Your task to perform on an android device: change the clock display to analog Image 0: 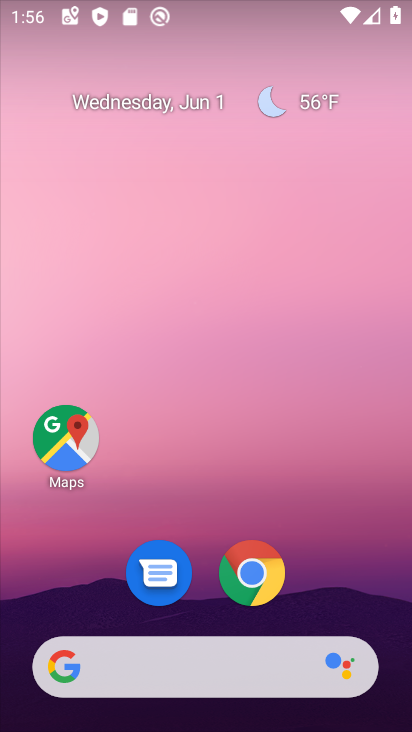
Step 0: drag from (360, 543) to (296, 47)
Your task to perform on an android device: change the clock display to analog Image 1: 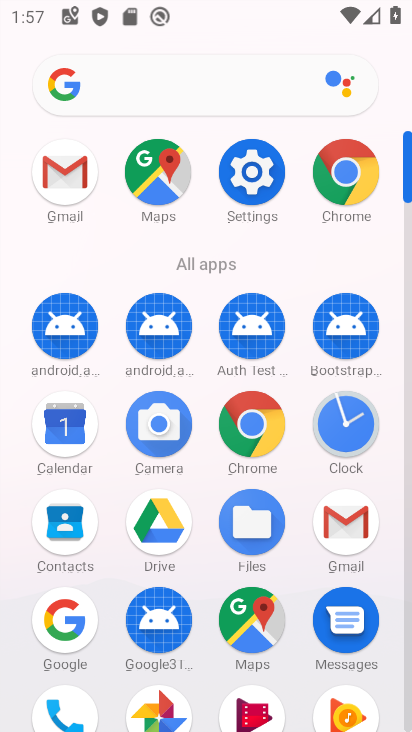
Step 1: click (370, 432)
Your task to perform on an android device: change the clock display to analog Image 2: 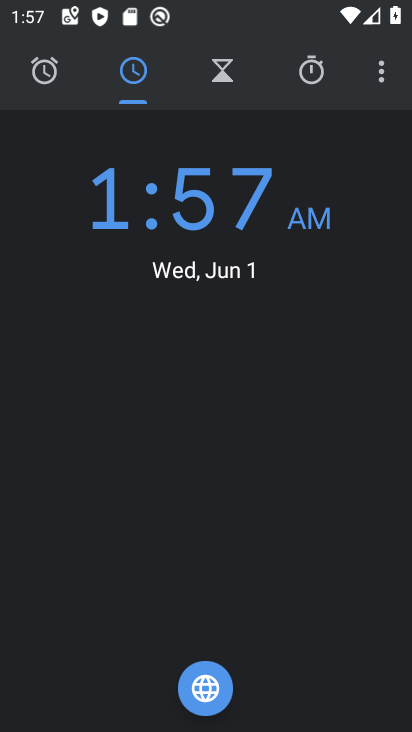
Step 2: click (379, 78)
Your task to perform on an android device: change the clock display to analog Image 3: 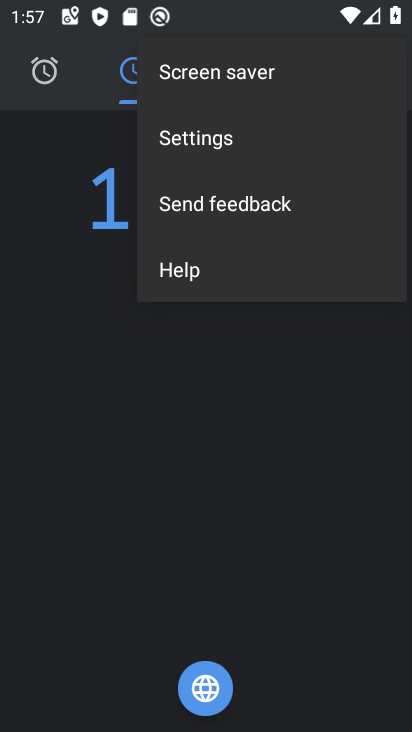
Step 3: click (219, 136)
Your task to perform on an android device: change the clock display to analog Image 4: 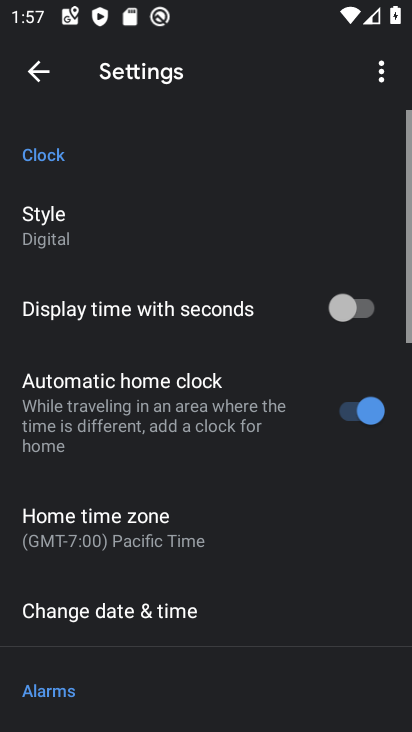
Step 4: click (62, 236)
Your task to perform on an android device: change the clock display to analog Image 5: 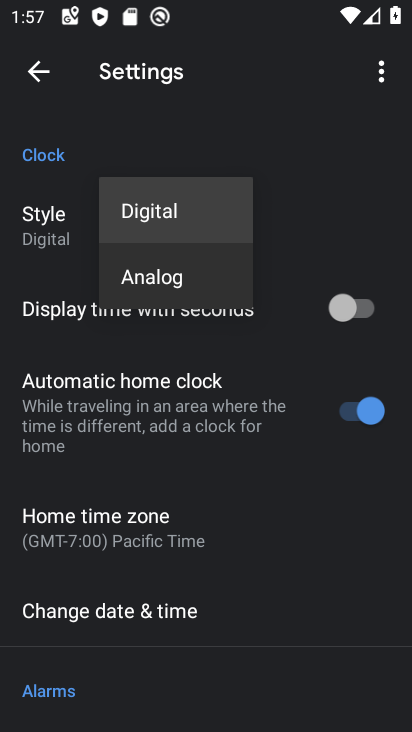
Step 5: click (167, 289)
Your task to perform on an android device: change the clock display to analog Image 6: 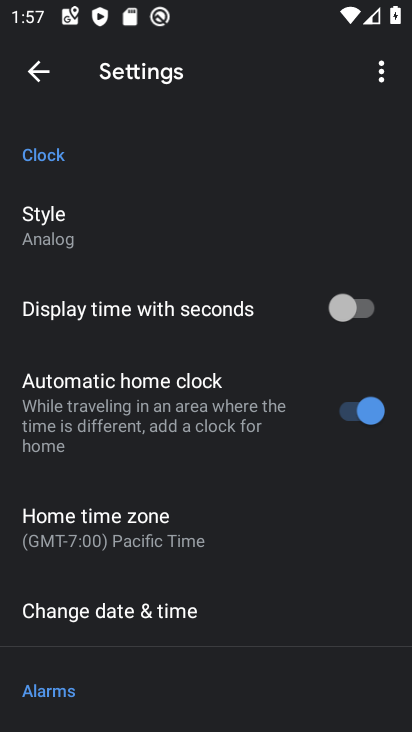
Step 6: task complete